Your task to perform on an android device: turn pop-ups on in chrome Image 0: 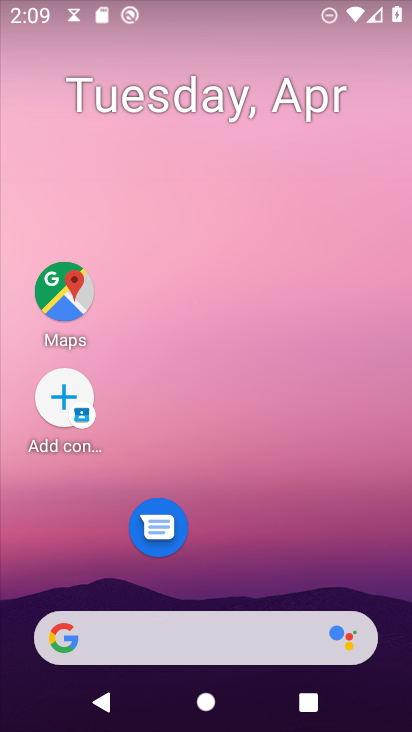
Step 0: drag from (187, 576) to (237, 19)
Your task to perform on an android device: turn pop-ups on in chrome Image 1: 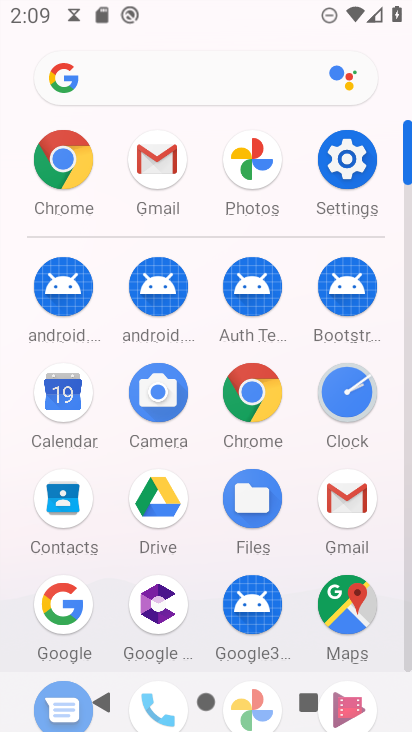
Step 1: click (68, 163)
Your task to perform on an android device: turn pop-ups on in chrome Image 2: 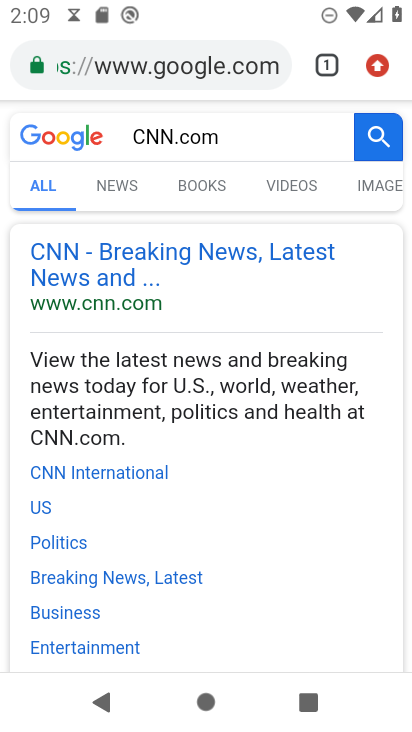
Step 2: click (382, 65)
Your task to perform on an android device: turn pop-ups on in chrome Image 3: 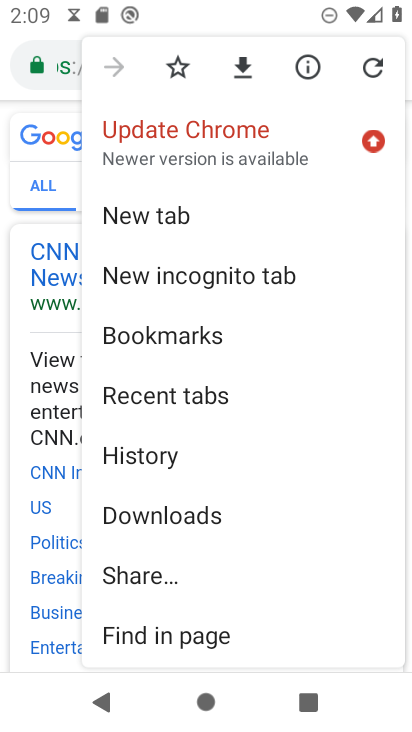
Step 3: drag from (212, 472) to (229, 325)
Your task to perform on an android device: turn pop-ups on in chrome Image 4: 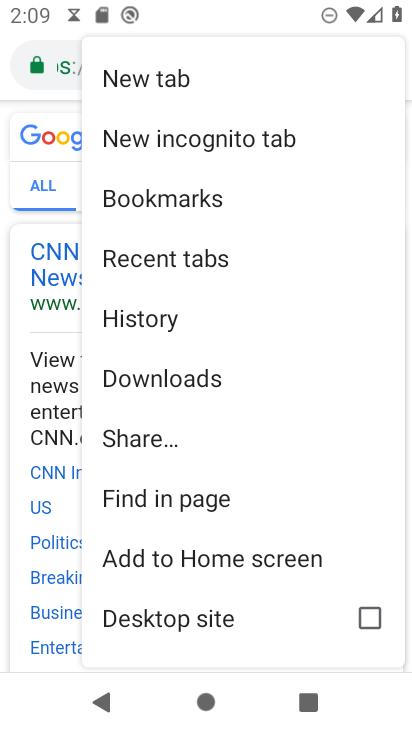
Step 4: drag from (202, 469) to (215, 384)
Your task to perform on an android device: turn pop-ups on in chrome Image 5: 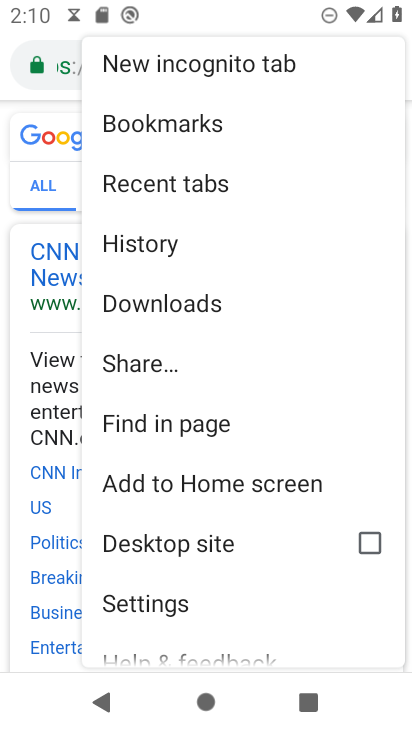
Step 5: drag from (194, 529) to (223, 415)
Your task to perform on an android device: turn pop-ups on in chrome Image 6: 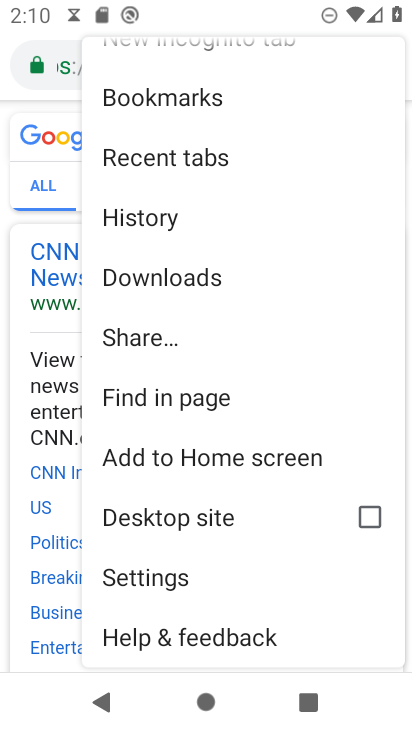
Step 6: click (159, 577)
Your task to perform on an android device: turn pop-ups on in chrome Image 7: 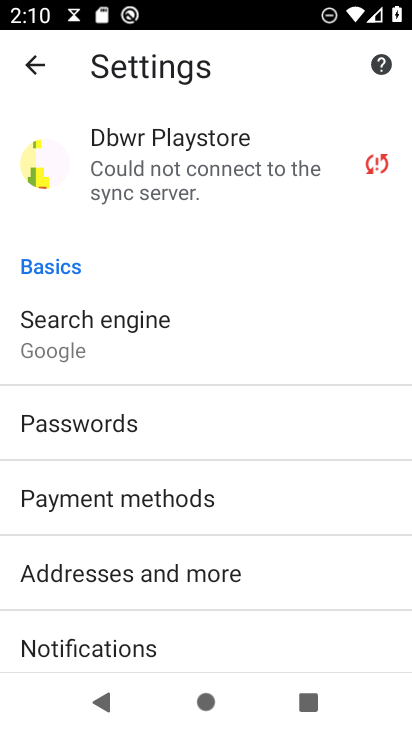
Step 7: drag from (171, 463) to (184, 345)
Your task to perform on an android device: turn pop-ups on in chrome Image 8: 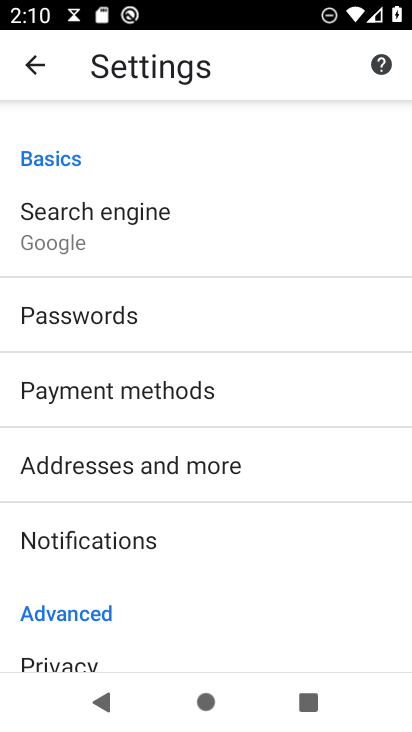
Step 8: drag from (171, 491) to (200, 356)
Your task to perform on an android device: turn pop-ups on in chrome Image 9: 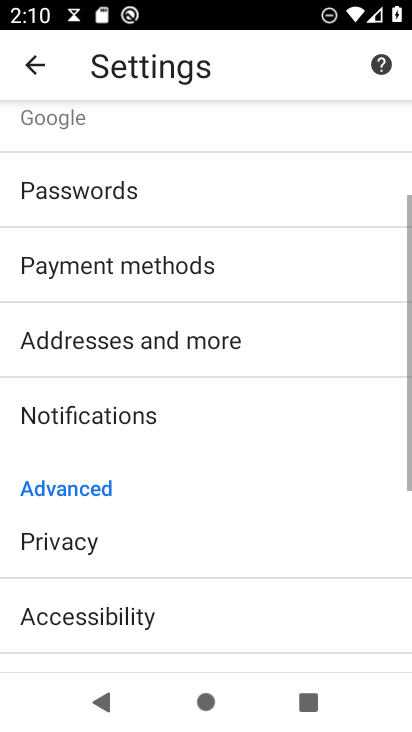
Step 9: drag from (182, 427) to (201, 342)
Your task to perform on an android device: turn pop-ups on in chrome Image 10: 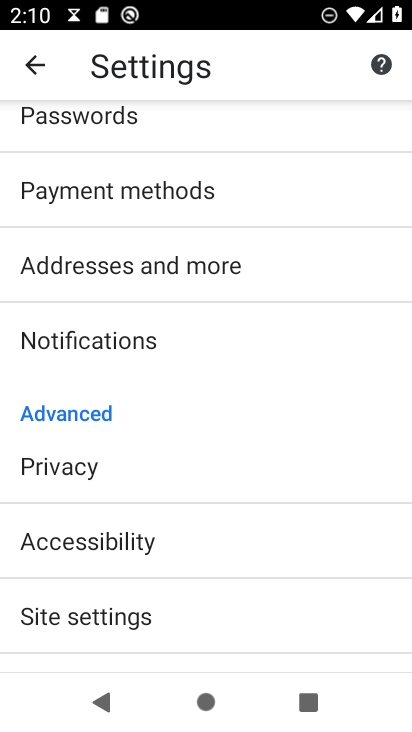
Step 10: drag from (181, 427) to (196, 337)
Your task to perform on an android device: turn pop-ups on in chrome Image 11: 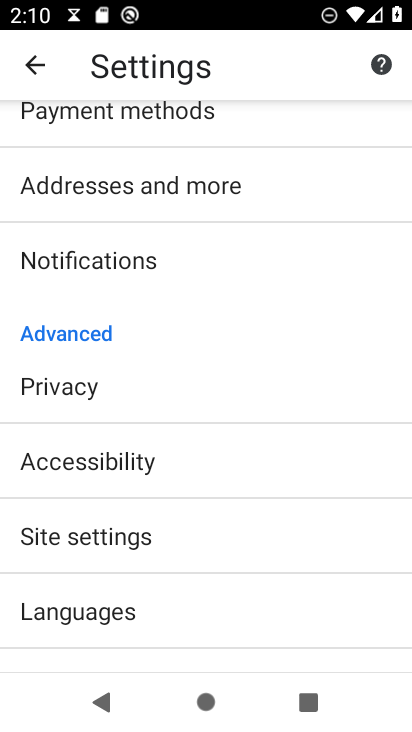
Step 11: drag from (168, 457) to (191, 342)
Your task to perform on an android device: turn pop-ups on in chrome Image 12: 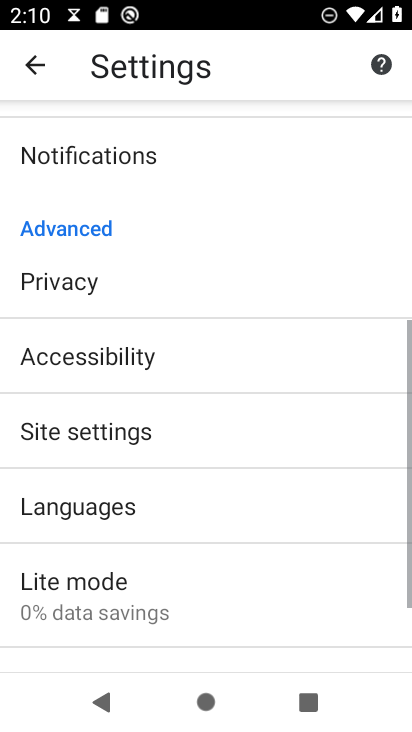
Step 12: click (121, 432)
Your task to perform on an android device: turn pop-ups on in chrome Image 13: 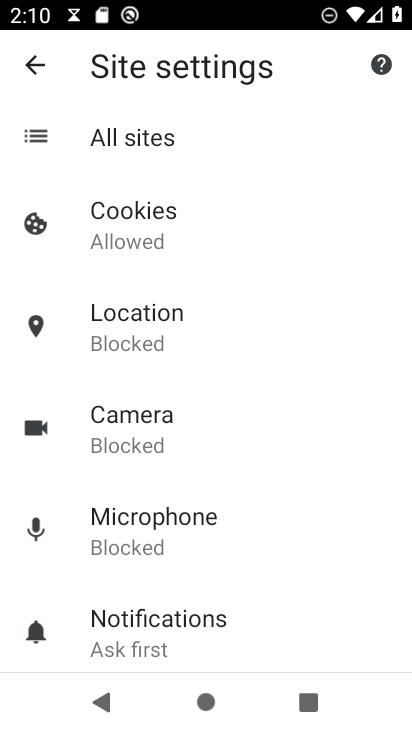
Step 13: drag from (213, 488) to (244, 390)
Your task to perform on an android device: turn pop-ups on in chrome Image 14: 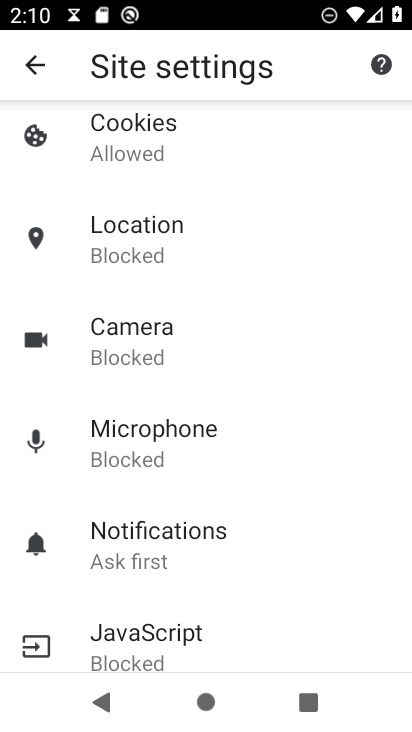
Step 14: drag from (195, 500) to (221, 374)
Your task to perform on an android device: turn pop-ups on in chrome Image 15: 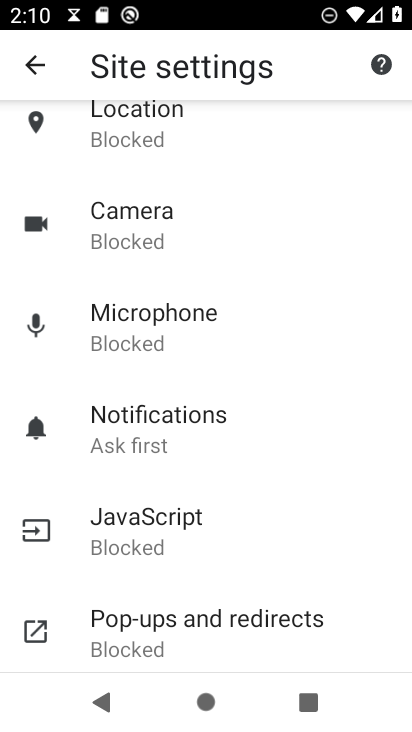
Step 15: drag from (205, 534) to (234, 442)
Your task to perform on an android device: turn pop-ups on in chrome Image 16: 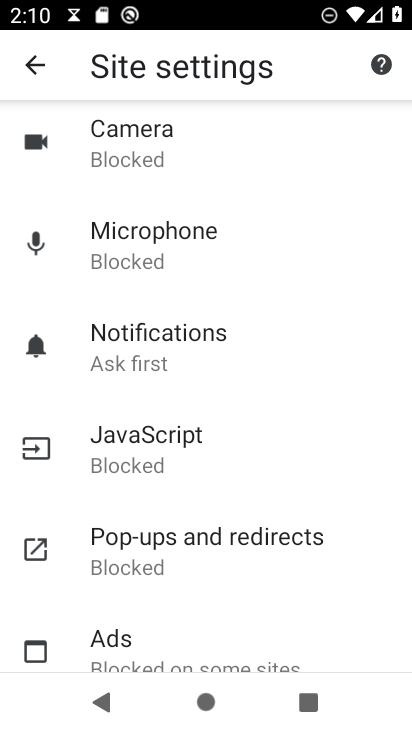
Step 16: click (245, 536)
Your task to perform on an android device: turn pop-ups on in chrome Image 17: 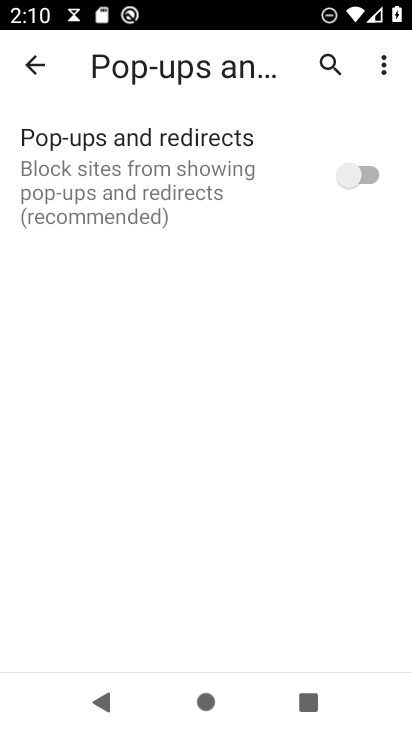
Step 17: click (342, 176)
Your task to perform on an android device: turn pop-ups on in chrome Image 18: 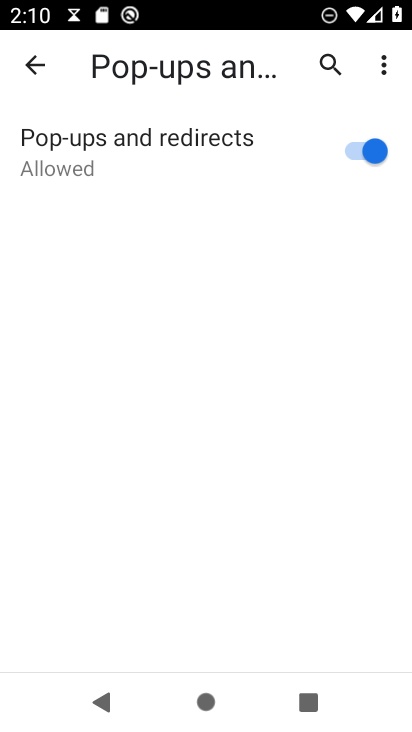
Step 18: task complete